Your task to perform on an android device: turn off location Image 0: 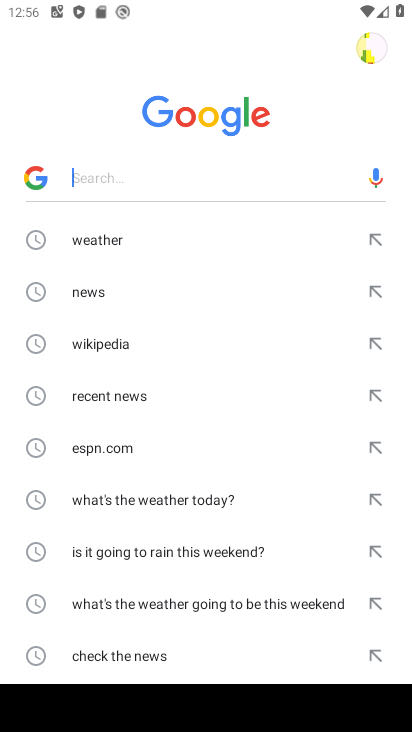
Step 0: press home button
Your task to perform on an android device: turn off location Image 1: 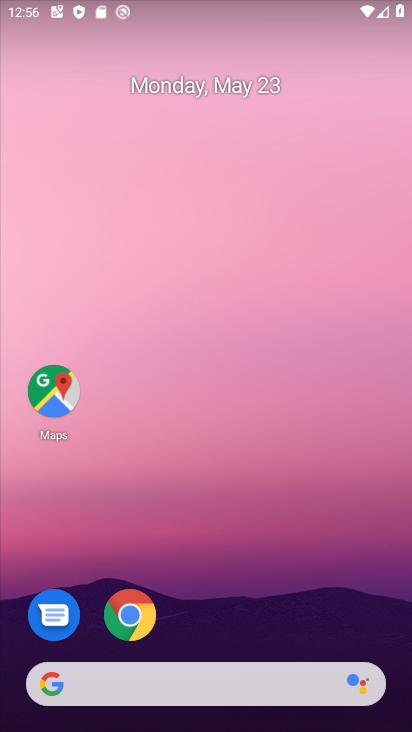
Step 1: drag from (237, 726) to (245, 149)
Your task to perform on an android device: turn off location Image 2: 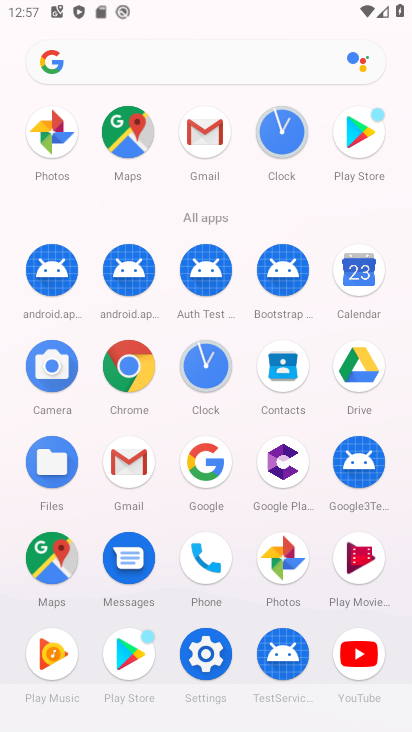
Step 2: click (201, 651)
Your task to perform on an android device: turn off location Image 3: 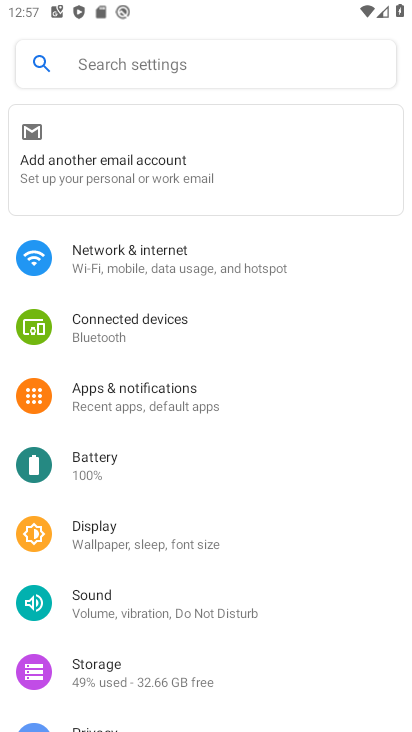
Step 3: drag from (222, 646) to (228, 333)
Your task to perform on an android device: turn off location Image 4: 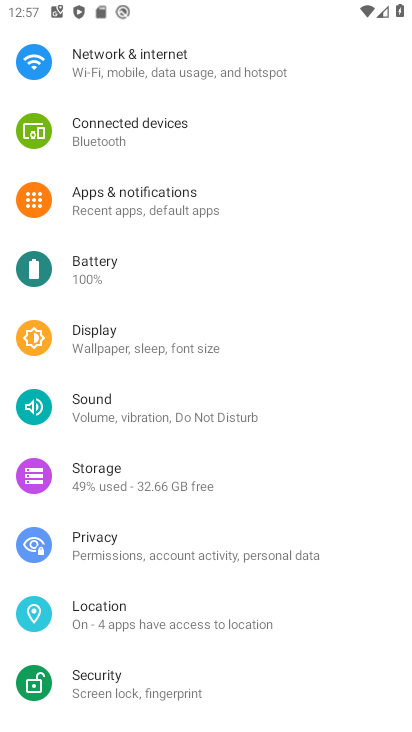
Step 4: click (120, 608)
Your task to perform on an android device: turn off location Image 5: 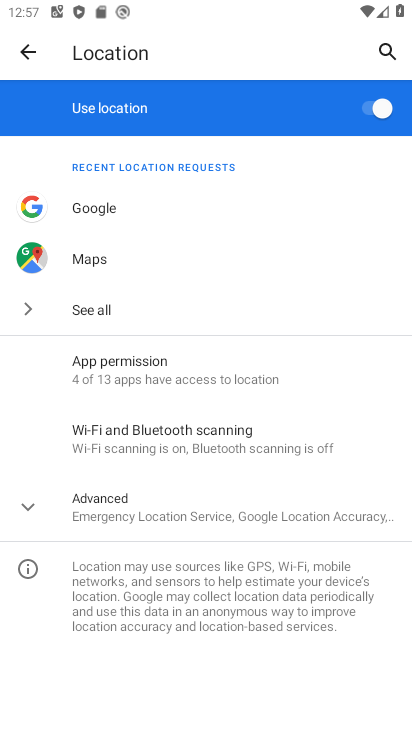
Step 5: click (367, 102)
Your task to perform on an android device: turn off location Image 6: 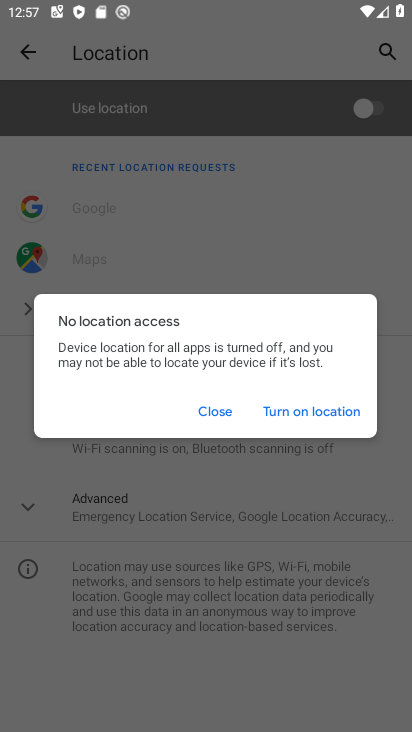
Step 6: click (208, 407)
Your task to perform on an android device: turn off location Image 7: 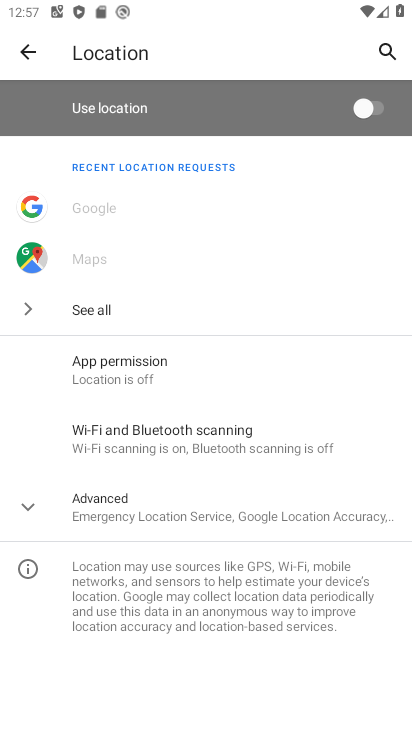
Step 7: task complete